Your task to perform on an android device: Go to calendar. Show me events next week Image 0: 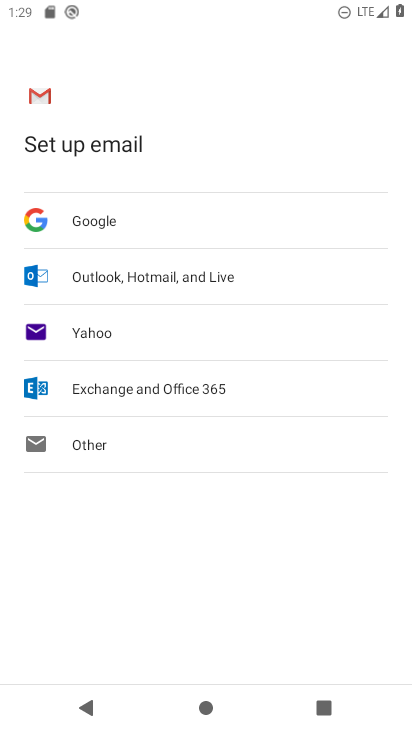
Step 0: press home button
Your task to perform on an android device: Go to calendar. Show me events next week Image 1: 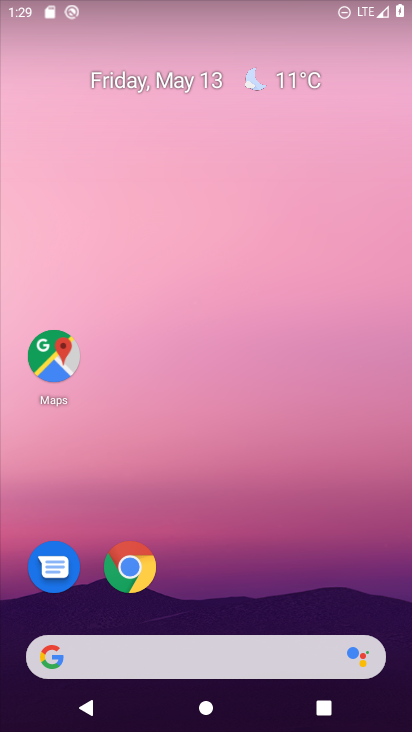
Step 1: drag from (195, 613) to (217, 0)
Your task to perform on an android device: Go to calendar. Show me events next week Image 2: 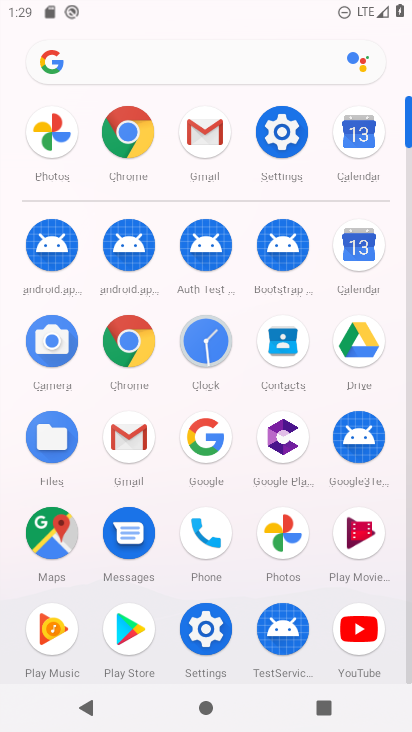
Step 2: click (354, 253)
Your task to perform on an android device: Go to calendar. Show me events next week Image 3: 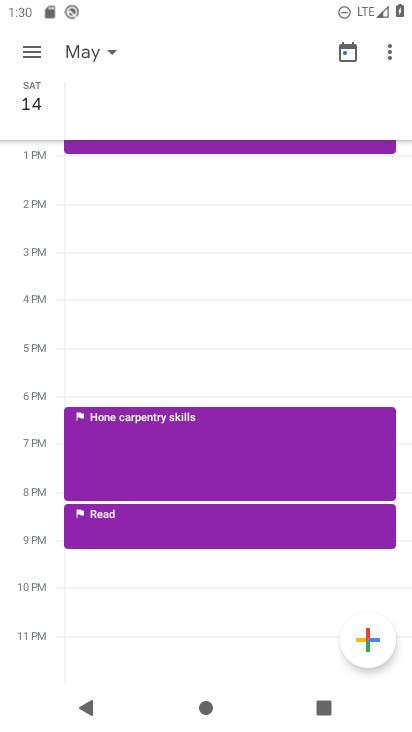
Step 3: click (31, 43)
Your task to perform on an android device: Go to calendar. Show me events next week Image 4: 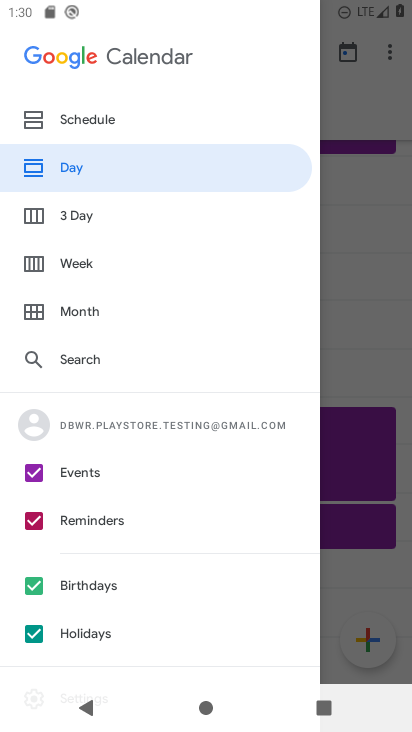
Step 4: click (44, 261)
Your task to perform on an android device: Go to calendar. Show me events next week Image 5: 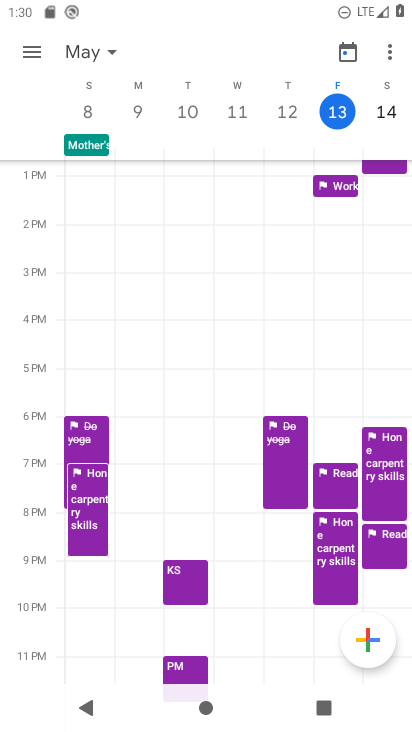
Step 5: drag from (371, 104) to (8, 102)
Your task to perform on an android device: Go to calendar. Show me events next week Image 6: 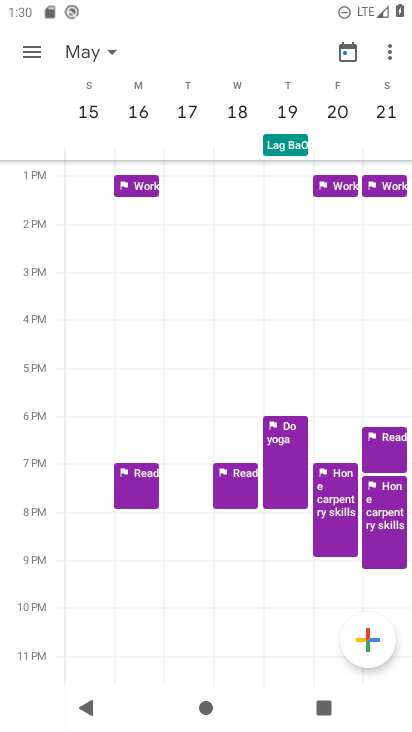
Step 6: click (77, 113)
Your task to perform on an android device: Go to calendar. Show me events next week Image 7: 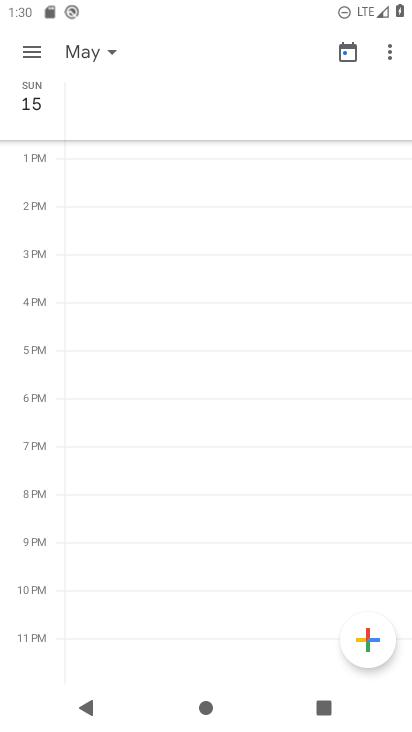
Step 7: click (43, 108)
Your task to perform on an android device: Go to calendar. Show me events next week Image 8: 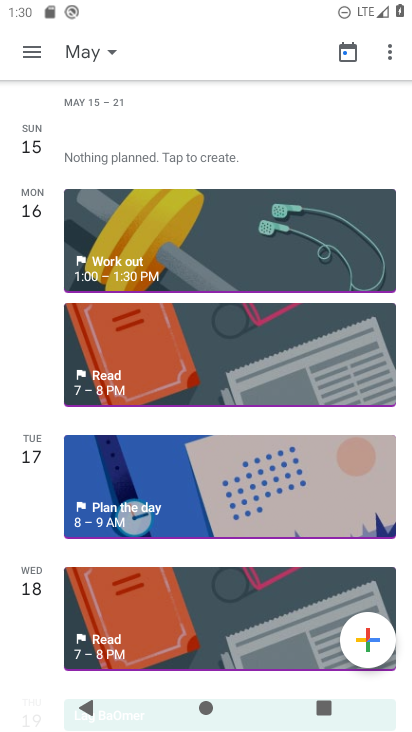
Step 8: task complete